Your task to perform on an android device: Open Chrome and go to settings Image 0: 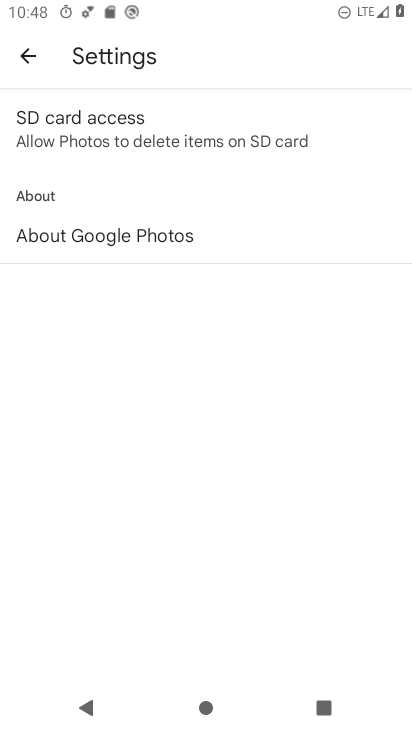
Step 0: press home button
Your task to perform on an android device: Open Chrome and go to settings Image 1: 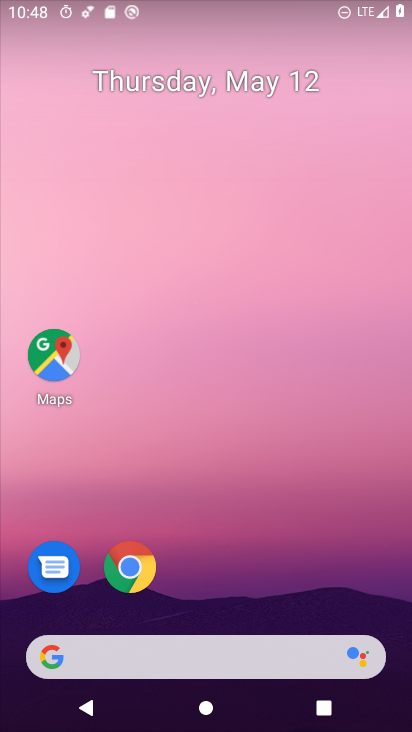
Step 1: drag from (81, 484) to (127, 14)
Your task to perform on an android device: Open Chrome and go to settings Image 2: 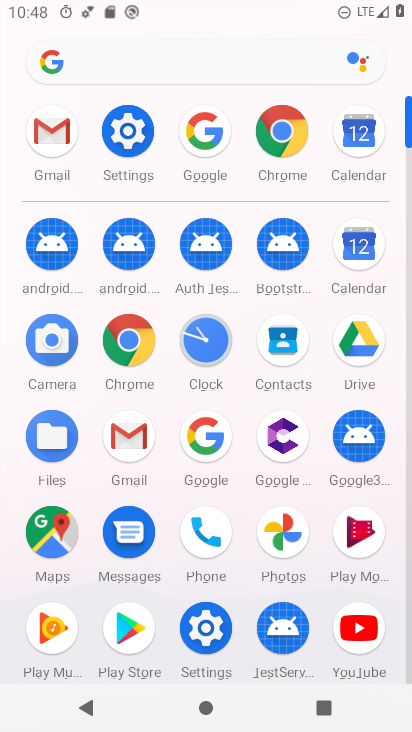
Step 2: click (142, 138)
Your task to perform on an android device: Open Chrome and go to settings Image 3: 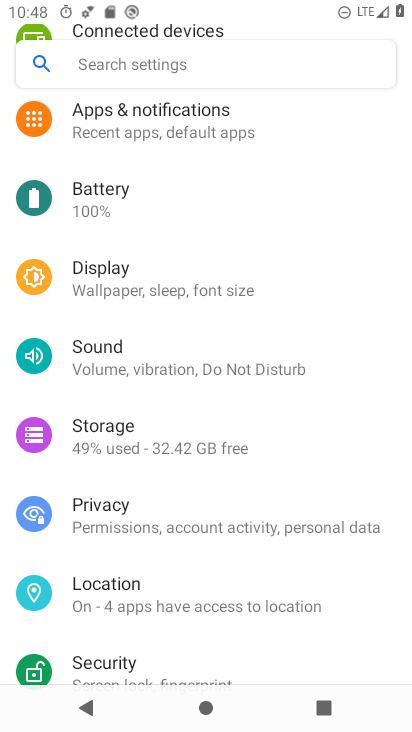
Step 3: press home button
Your task to perform on an android device: Open Chrome and go to settings Image 4: 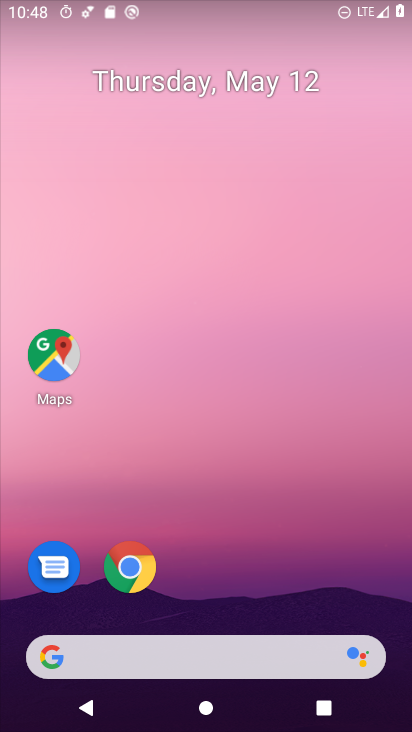
Step 4: click (135, 566)
Your task to perform on an android device: Open Chrome and go to settings Image 5: 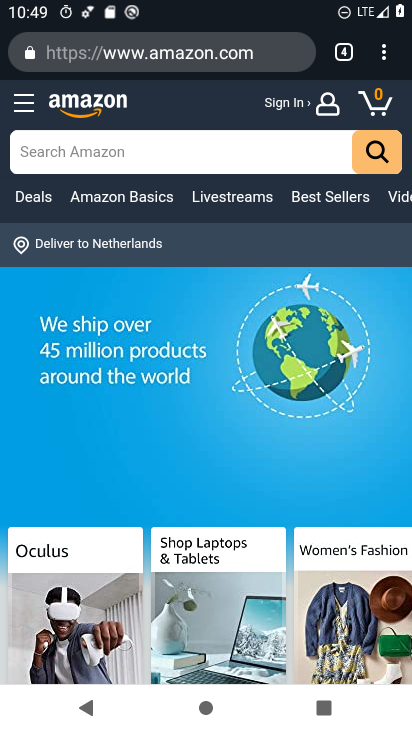
Step 5: click (388, 64)
Your task to perform on an android device: Open Chrome and go to settings Image 6: 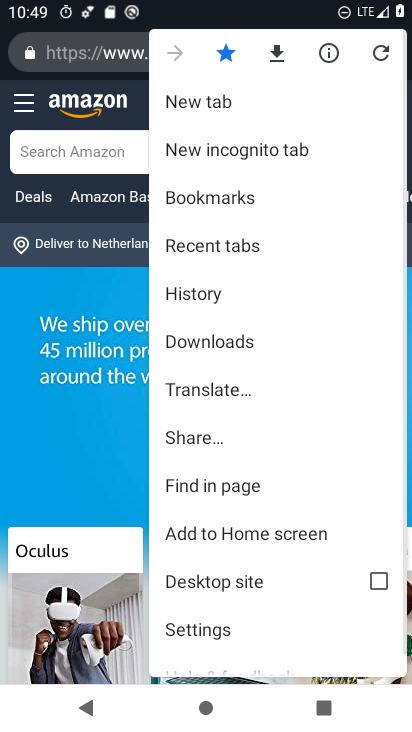
Step 6: drag from (254, 494) to (197, 197)
Your task to perform on an android device: Open Chrome and go to settings Image 7: 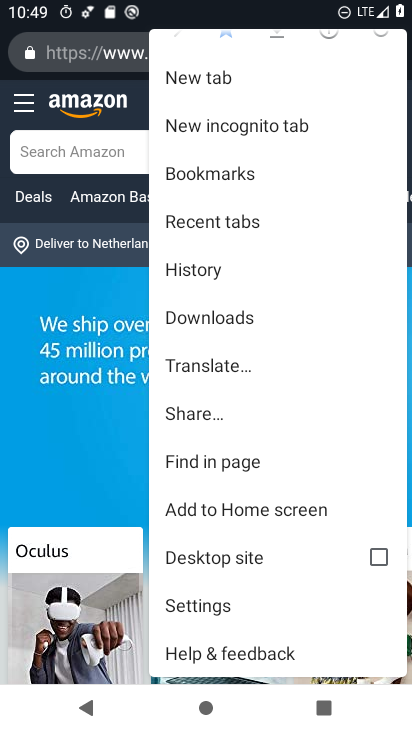
Step 7: click (257, 599)
Your task to perform on an android device: Open Chrome and go to settings Image 8: 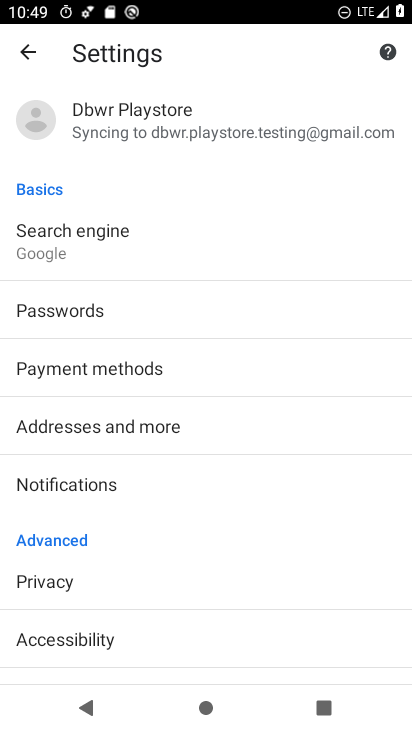
Step 8: task complete